Your task to perform on an android device: open app "Spotify" Image 0: 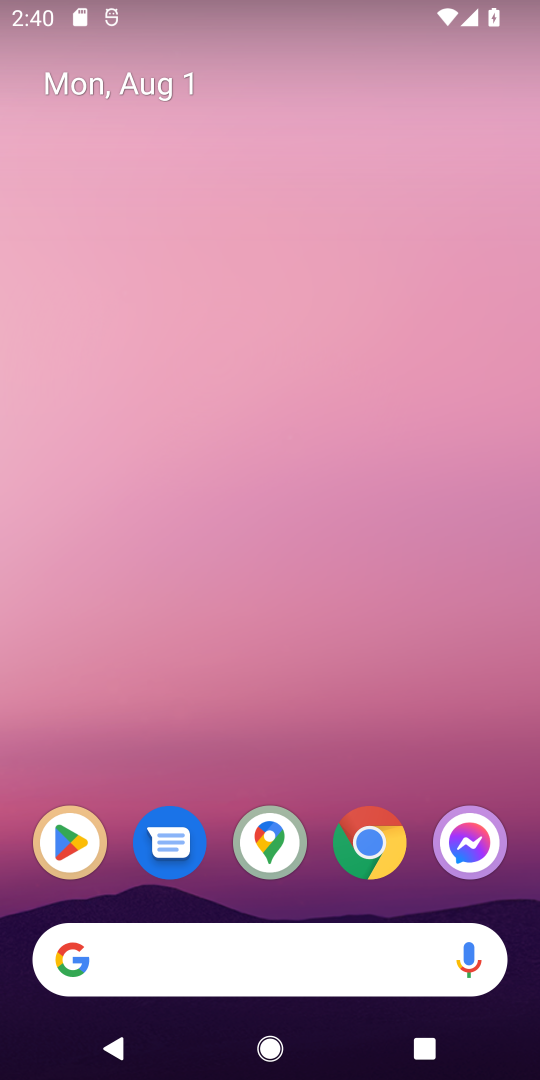
Step 0: click (84, 833)
Your task to perform on an android device: open app "Spotify" Image 1: 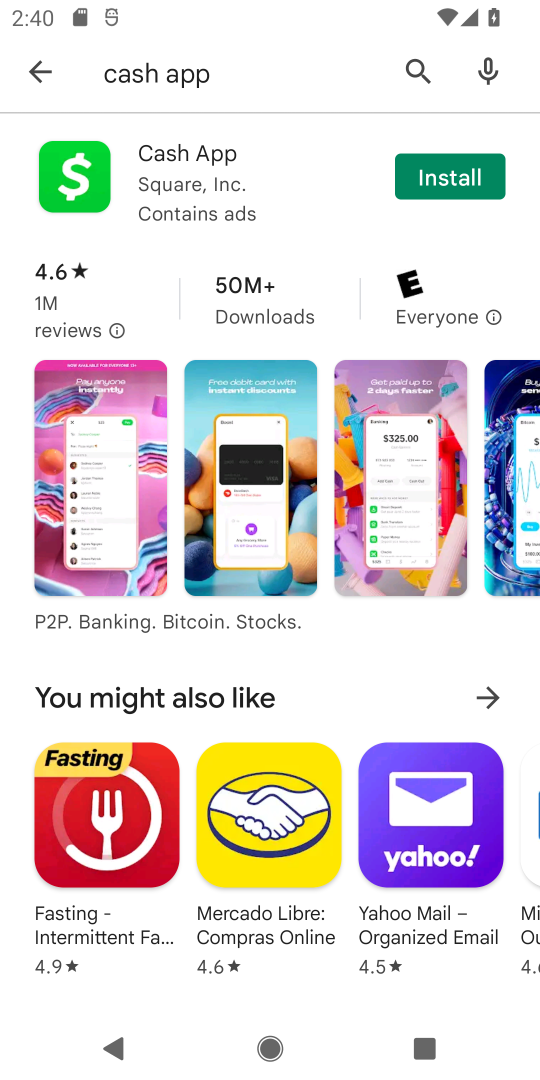
Step 1: click (195, 75)
Your task to perform on an android device: open app "Spotify" Image 2: 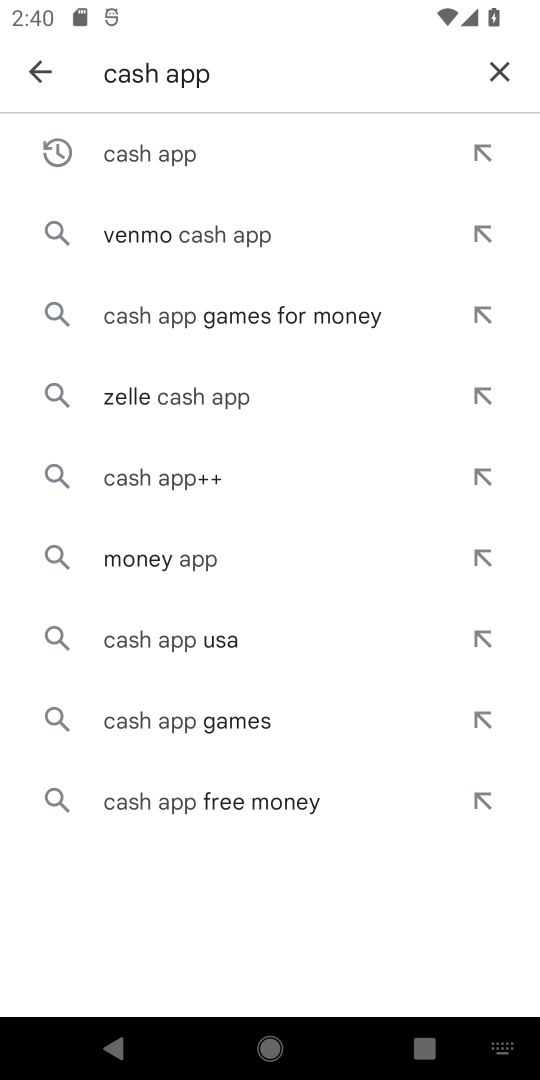
Step 2: click (496, 60)
Your task to perform on an android device: open app "Spotify" Image 3: 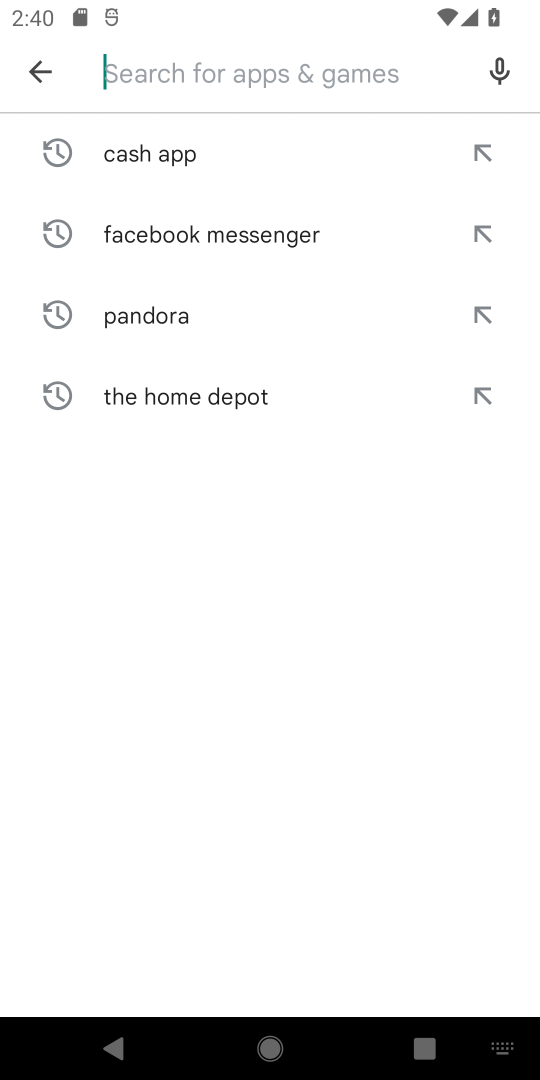
Step 3: type "Spotify"
Your task to perform on an android device: open app "Spotify" Image 4: 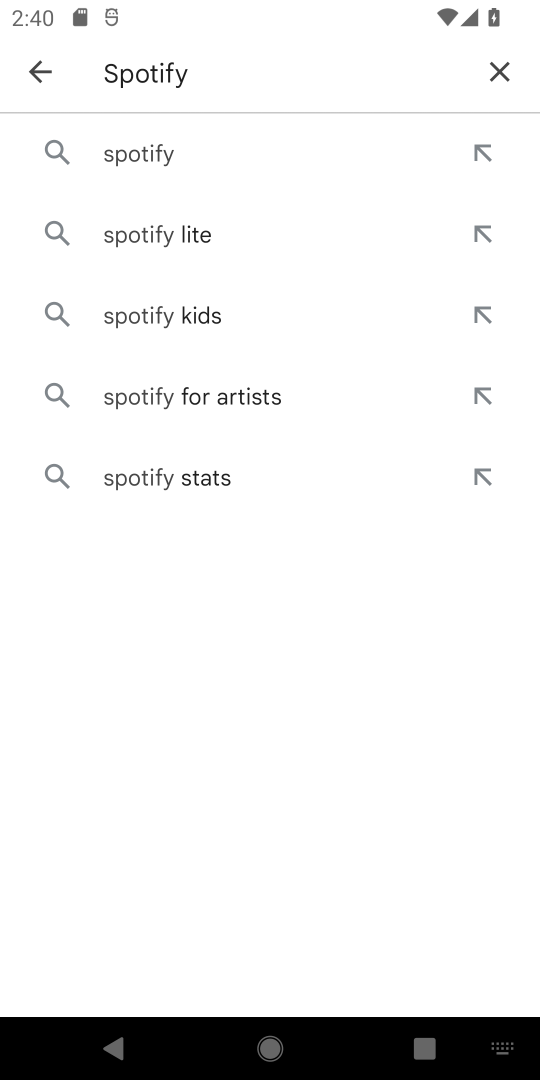
Step 4: click (189, 162)
Your task to perform on an android device: open app "Spotify" Image 5: 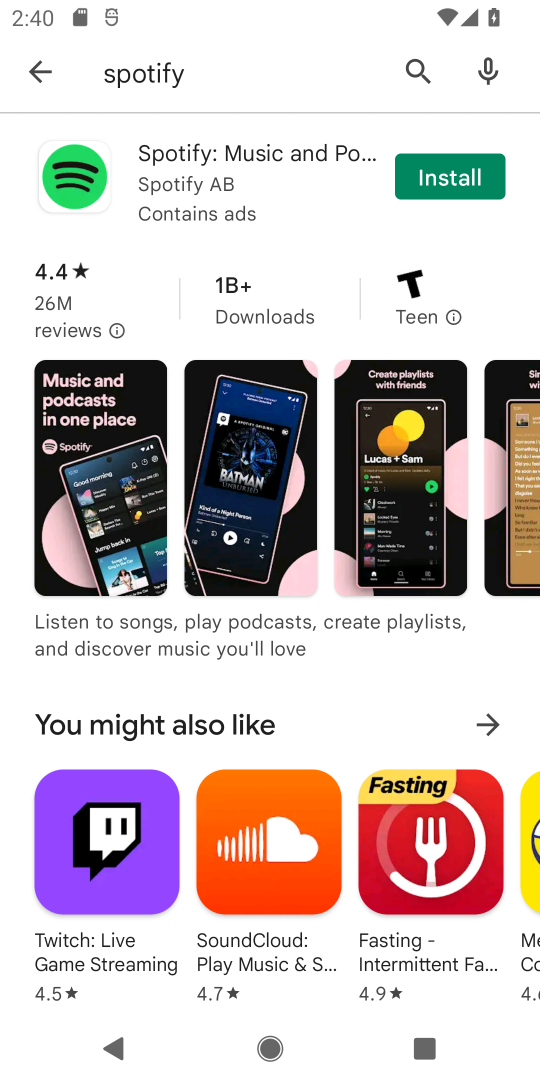
Step 5: task complete